Your task to perform on an android device: Open Google Image 0: 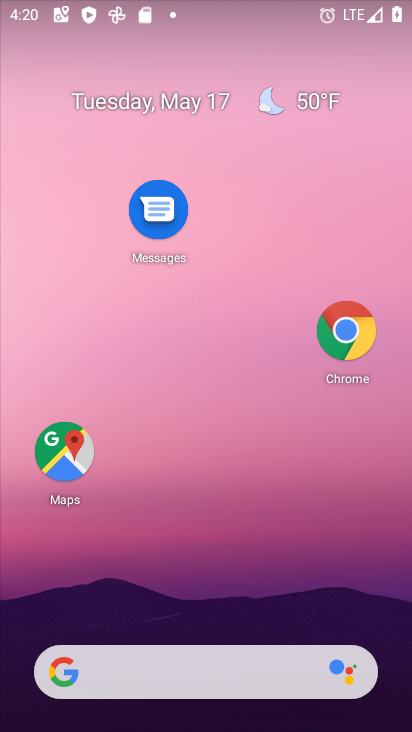
Step 0: click (333, 342)
Your task to perform on an android device: Open Google Image 1: 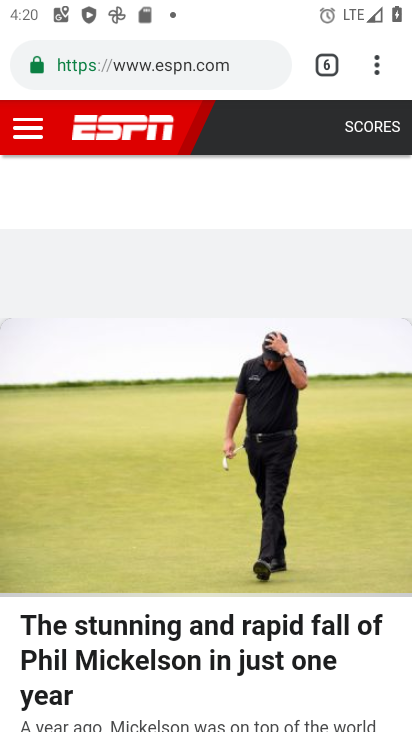
Step 1: click (218, 75)
Your task to perform on an android device: Open Google Image 2: 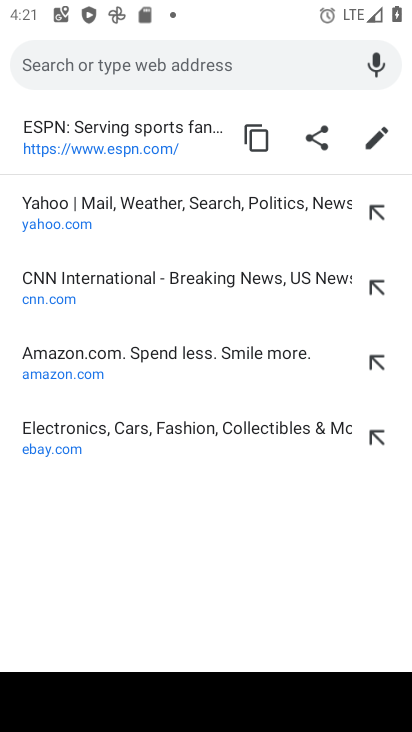
Step 2: type "google.com"
Your task to perform on an android device: Open Google Image 3: 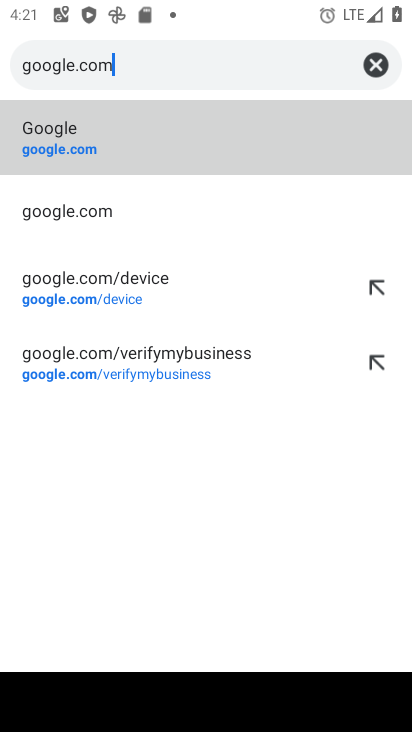
Step 3: click (172, 137)
Your task to perform on an android device: Open Google Image 4: 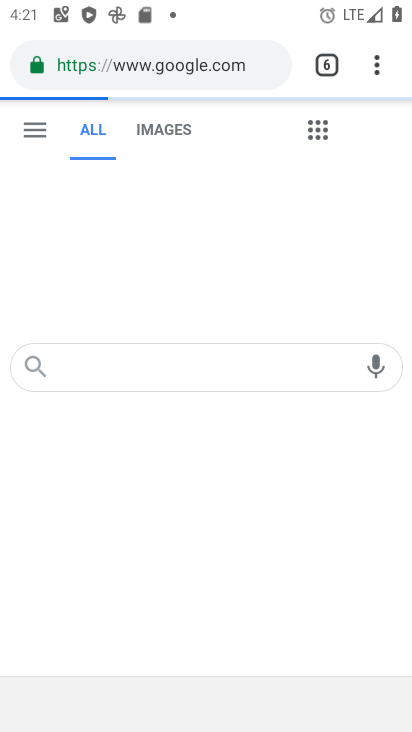
Step 4: task complete